Your task to perform on an android device: clear history in the chrome app Image 0: 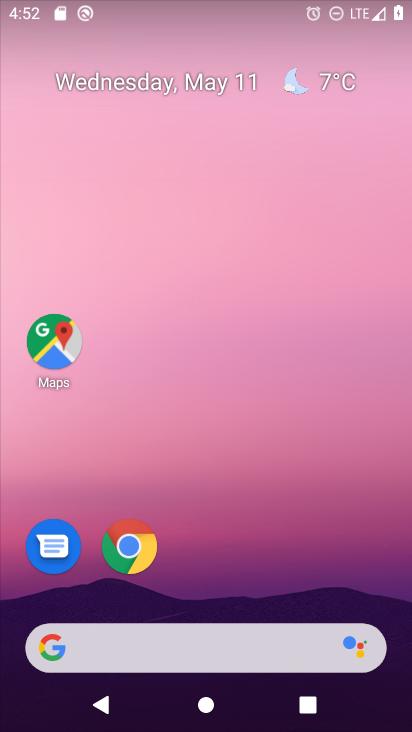
Step 0: drag from (324, 679) to (316, 99)
Your task to perform on an android device: clear history in the chrome app Image 1: 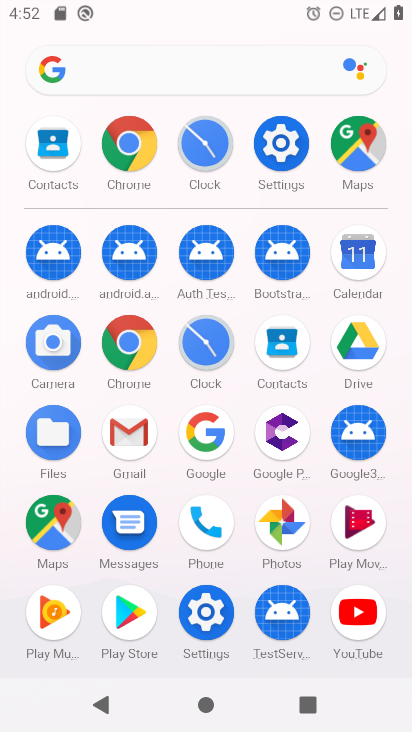
Step 1: click (127, 343)
Your task to perform on an android device: clear history in the chrome app Image 2: 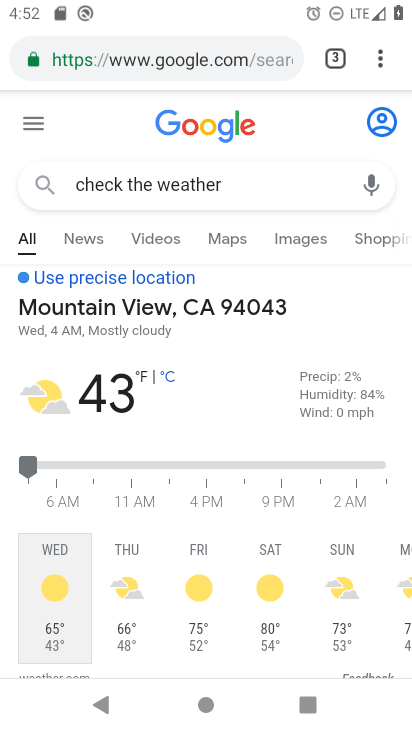
Step 2: drag from (374, 61) to (223, 329)
Your task to perform on an android device: clear history in the chrome app Image 3: 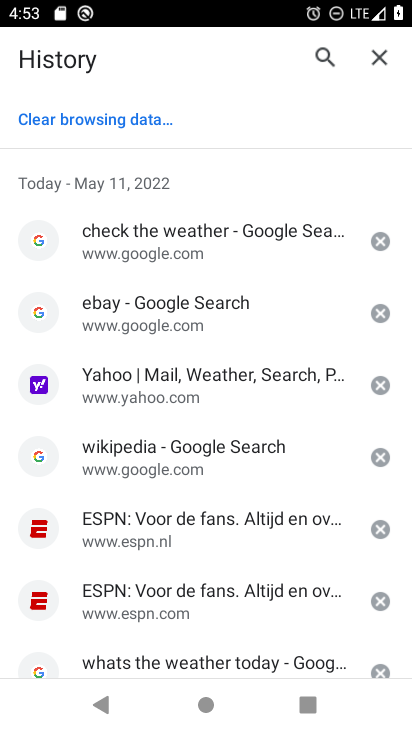
Step 3: click (129, 121)
Your task to perform on an android device: clear history in the chrome app Image 4: 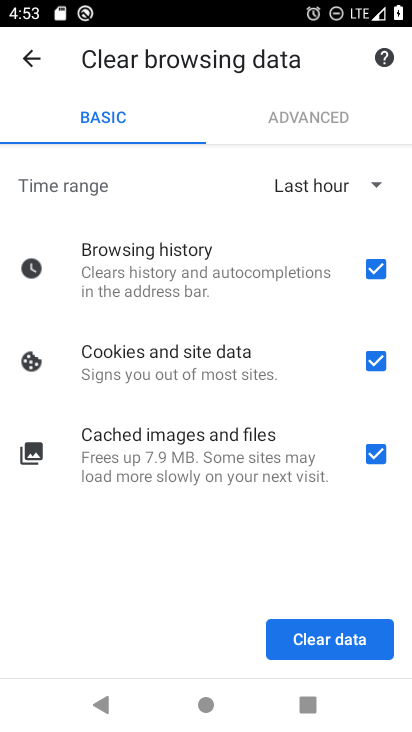
Step 4: click (331, 638)
Your task to perform on an android device: clear history in the chrome app Image 5: 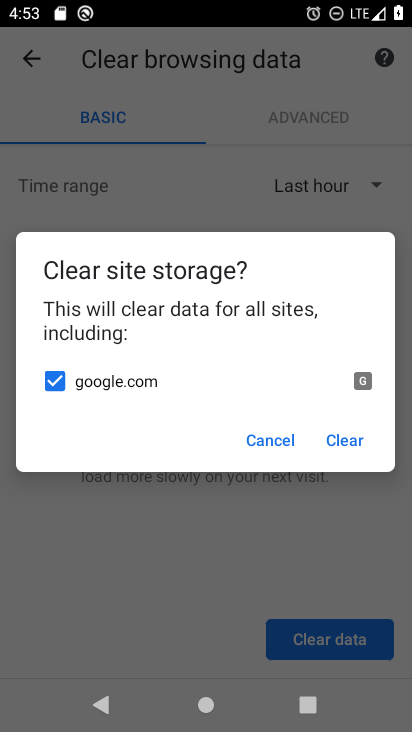
Step 5: click (349, 432)
Your task to perform on an android device: clear history in the chrome app Image 6: 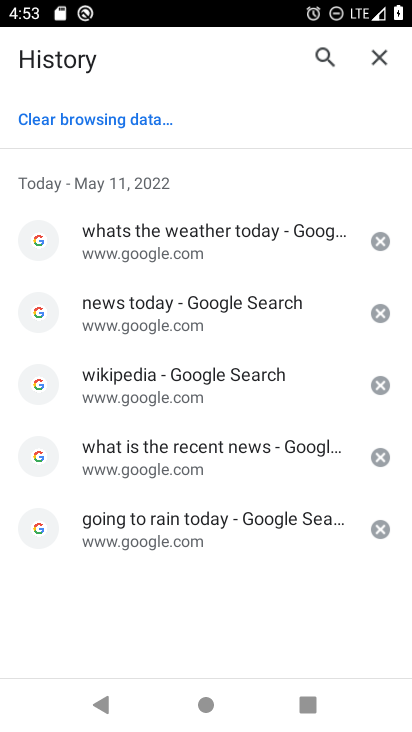
Step 6: click (374, 242)
Your task to perform on an android device: clear history in the chrome app Image 7: 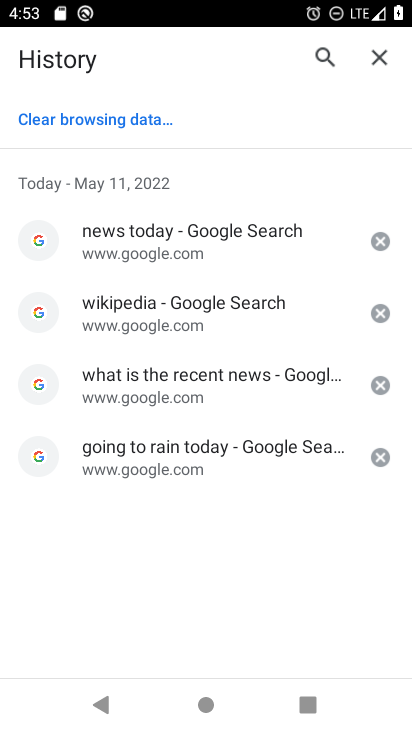
Step 7: click (384, 237)
Your task to perform on an android device: clear history in the chrome app Image 8: 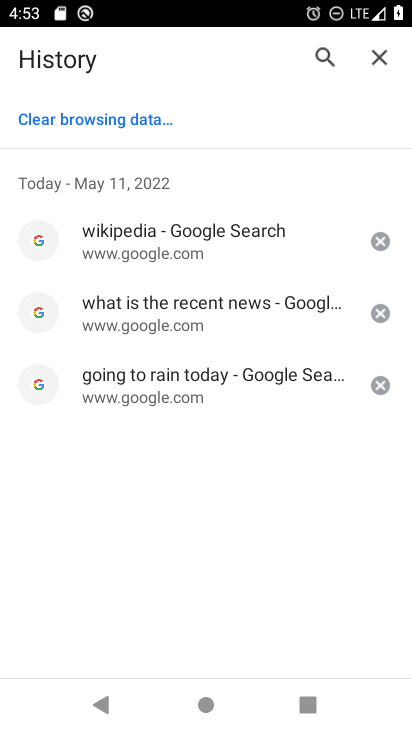
Step 8: click (385, 238)
Your task to perform on an android device: clear history in the chrome app Image 9: 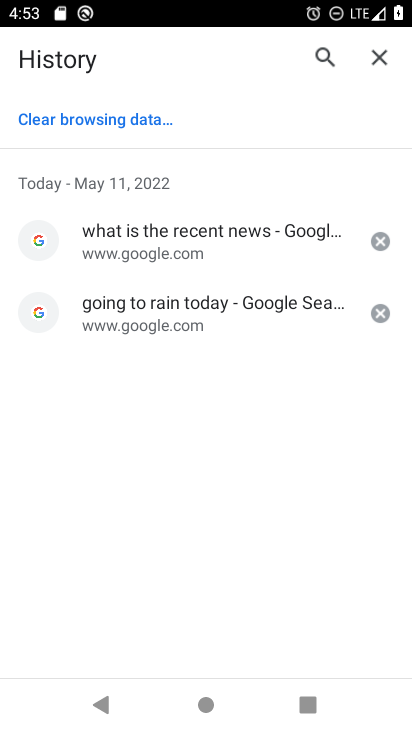
Step 9: click (374, 243)
Your task to perform on an android device: clear history in the chrome app Image 10: 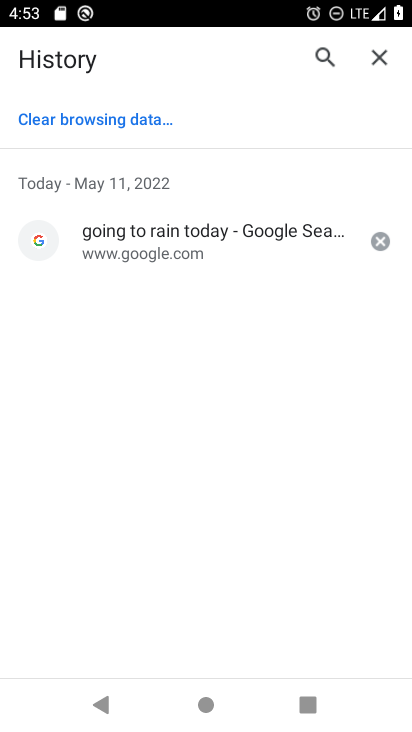
Step 10: click (384, 243)
Your task to perform on an android device: clear history in the chrome app Image 11: 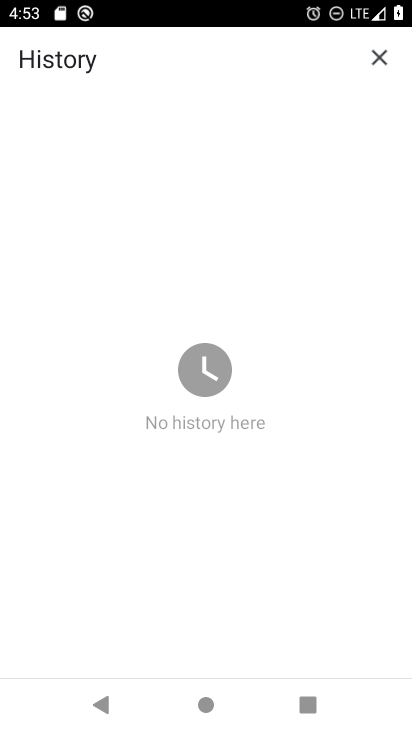
Step 11: task complete